Your task to perform on an android device: Do I have any events this weekend? Image 0: 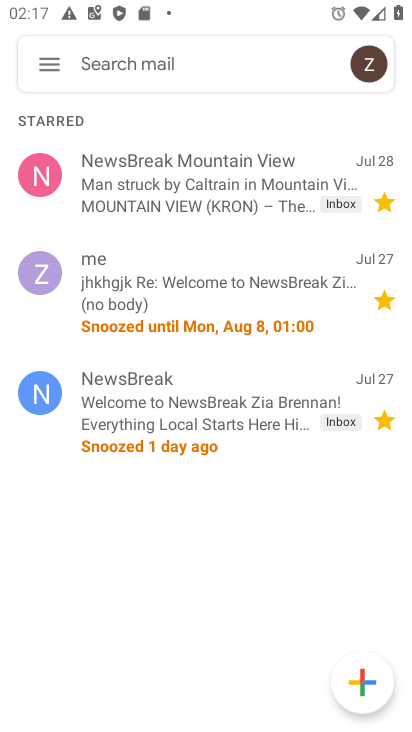
Step 0: press home button
Your task to perform on an android device: Do I have any events this weekend? Image 1: 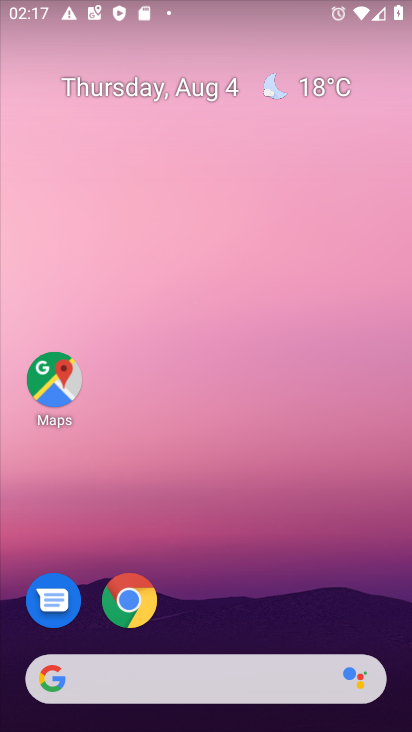
Step 1: drag from (155, 684) to (284, 16)
Your task to perform on an android device: Do I have any events this weekend? Image 2: 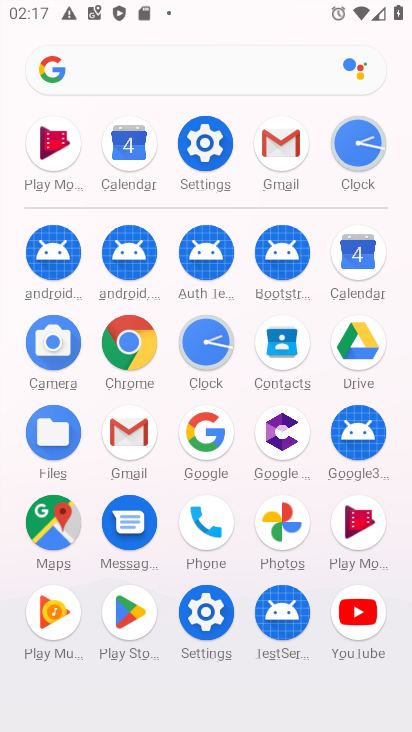
Step 2: click (362, 263)
Your task to perform on an android device: Do I have any events this weekend? Image 3: 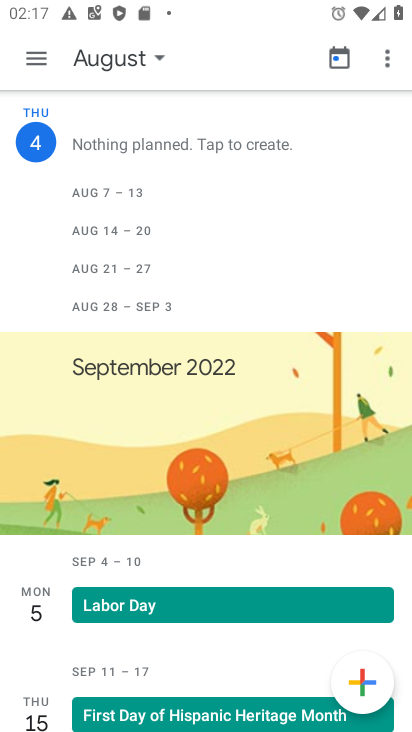
Step 3: click (117, 57)
Your task to perform on an android device: Do I have any events this weekend? Image 4: 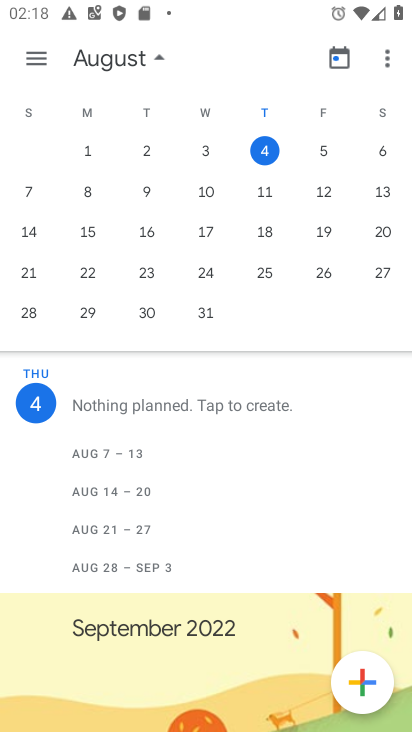
Step 4: click (378, 153)
Your task to perform on an android device: Do I have any events this weekend? Image 5: 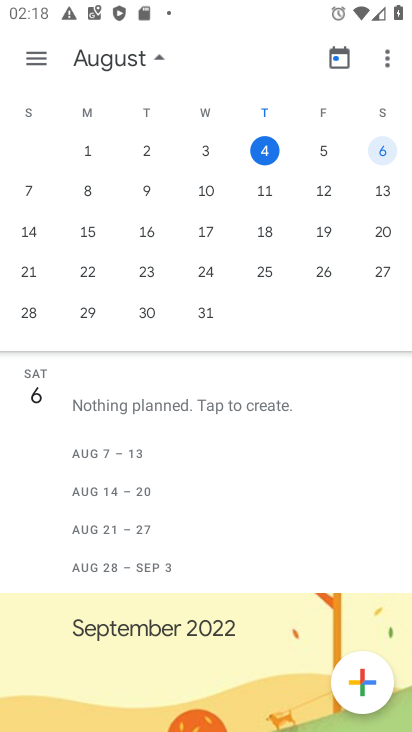
Step 5: click (45, 60)
Your task to perform on an android device: Do I have any events this weekend? Image 6: 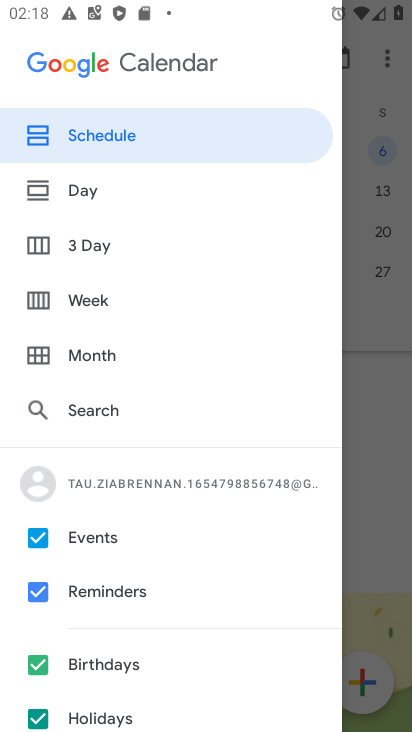
Step 6: click (82, 198)
Your task to perform on an android device: Do I have any events this weekend? Image 7: 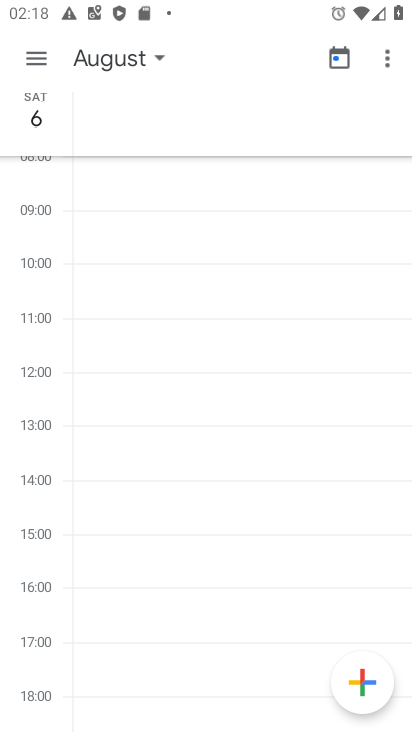
Step 7: click (40, 54)
Your task to perform on an android device: Do I have any events this weekend? Image 8: 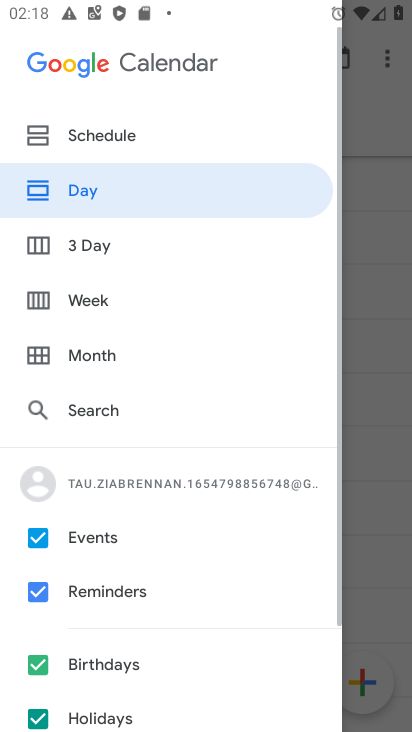
Step 8: click (132, 134)
Your task to perform on an android device: Do I have any events this weekend? Image 9: 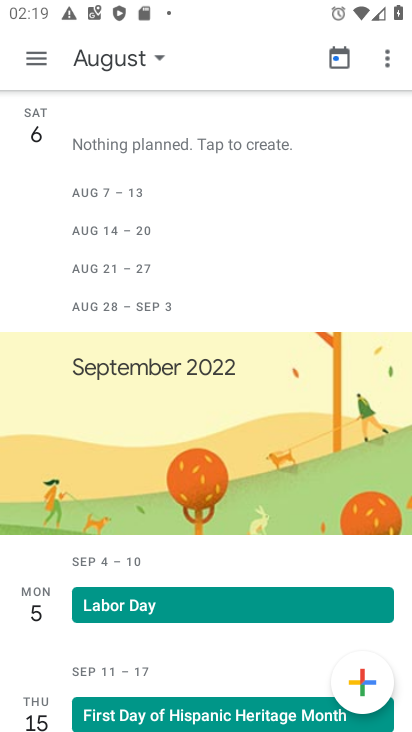
Step 9: task complete